Your task to perform on an android device: toggle airplane mode Image 0: 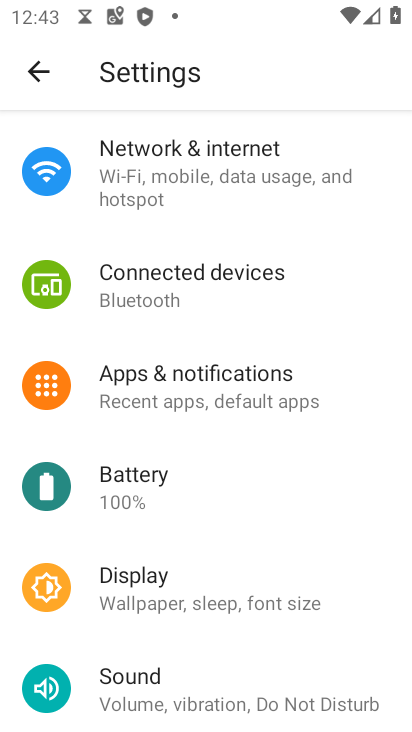
Step 0: press home button
Your task to perform on an android device: toggle airplane mode Image 1: 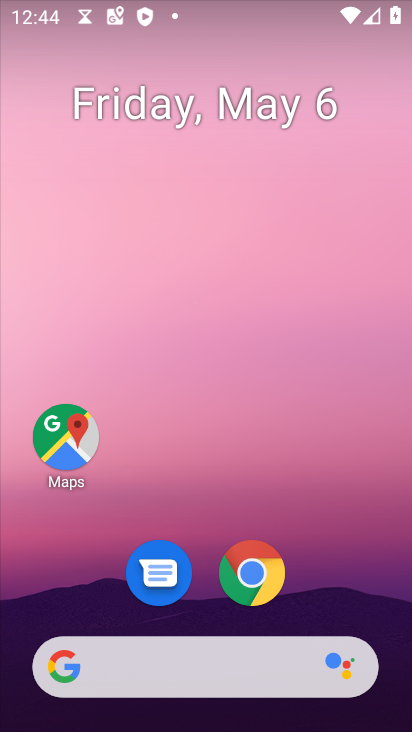
Step 1: drag from (326, 585) to (339, 230)
Your task to perform on an android device: toggle airplane mode Image 2: 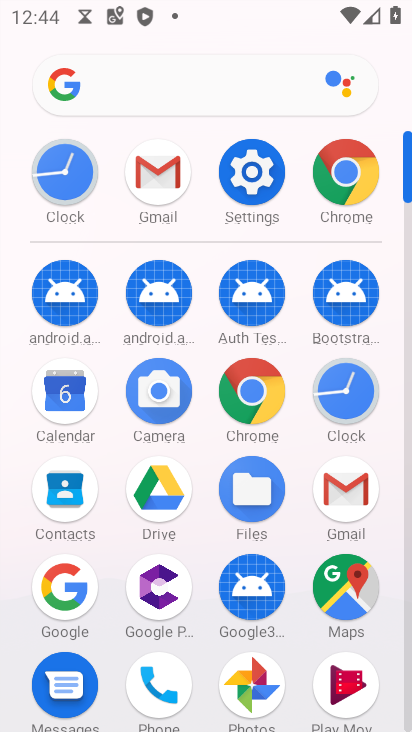
Step 2: click (231, 157)
Your task to perform on an android device: toggle airplane mode Image 3: 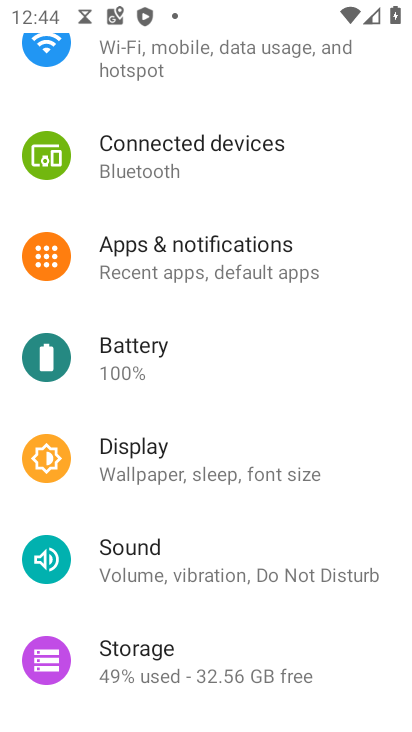
Step 3: drag from (196, 112) to (183, 608)
Your task to perform on an android device: toggle airplane mode Image 4: 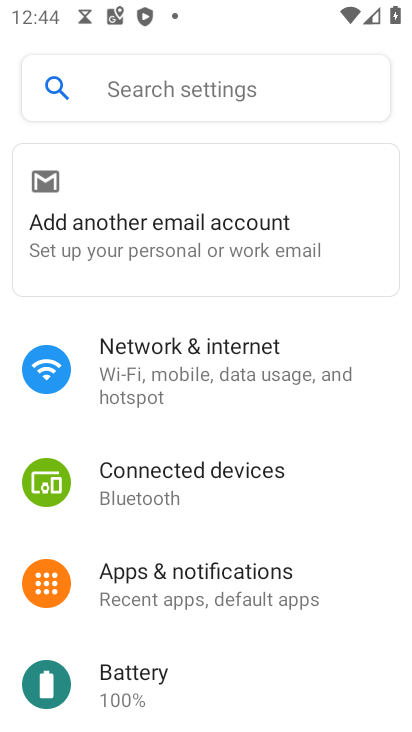
Step 4: click (185, 372)
Your task to perform on an android device: toggle airplane mode Image 5: 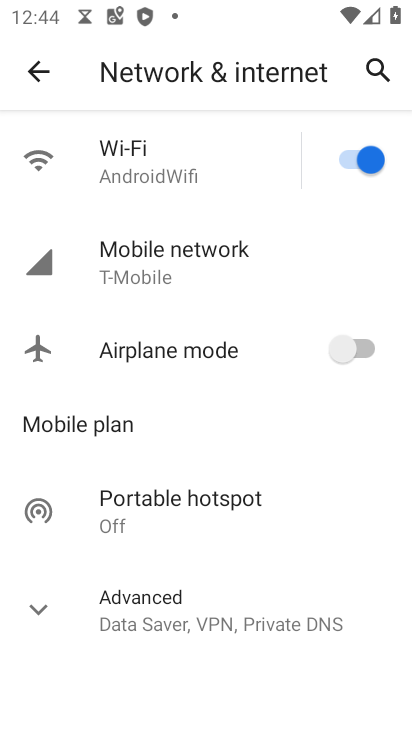
Step 5: click (333, 347)
Your task to perform on an android device: toggle airplane mode Image 6: 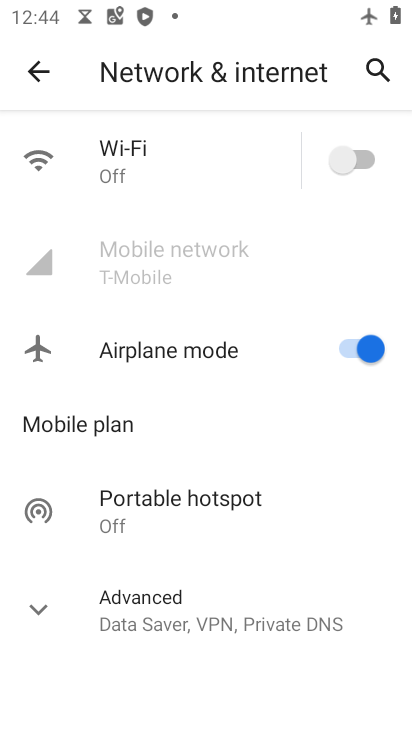
Step 6: task complete